Your task to perform on an android device: turn on translation in the chrome app Image 0: 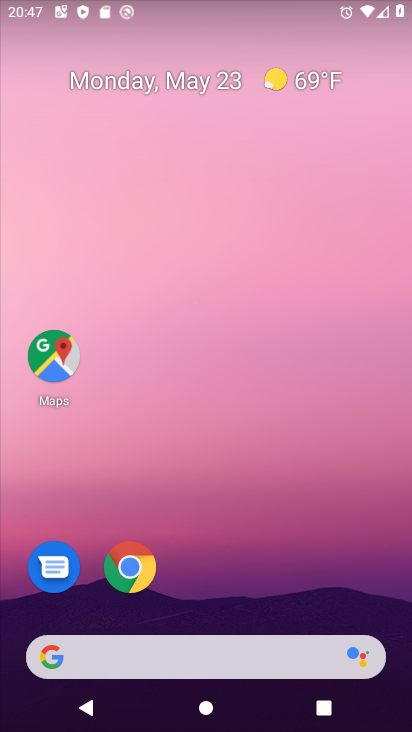
Step 0: drag from (182, 608) to (240, 23)
Your task to perform on an android device: turn on translation in the chrome app Image 1: 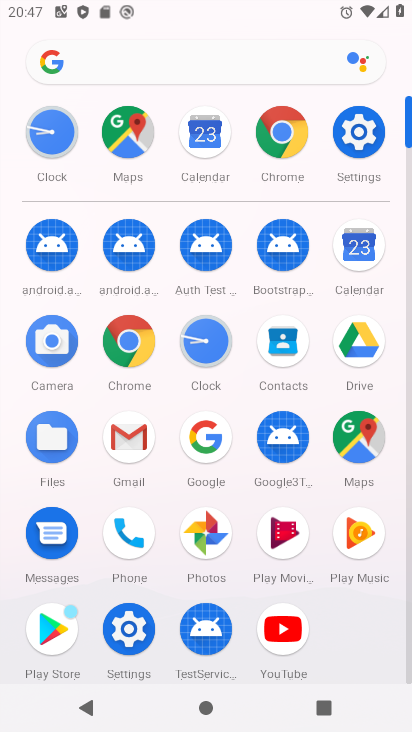
Step 1: click (285, 146)
Your task to perform on an android device: turn on translation in the chrome app Image 2: 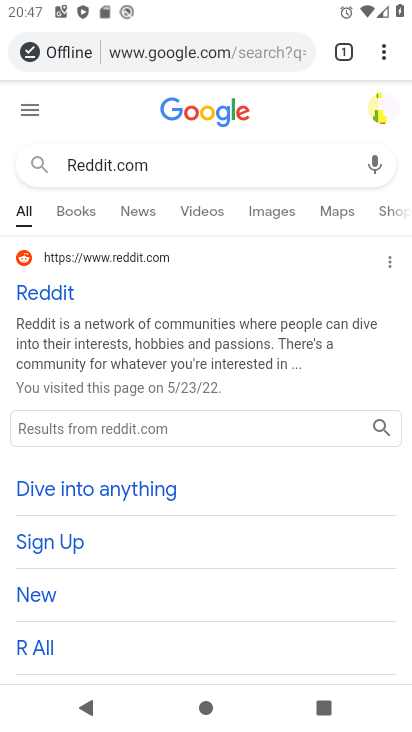
Step 2: click (383, 42)
Your task to perform on an android device: turn on translation in the chrome app Image 3: 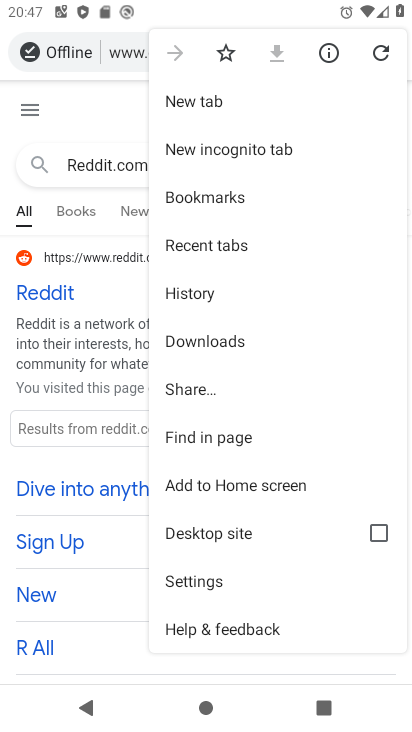
Step 3: click (194, 581)
Your task to perform on an android device: turn on translation in the chrome app Image 4: 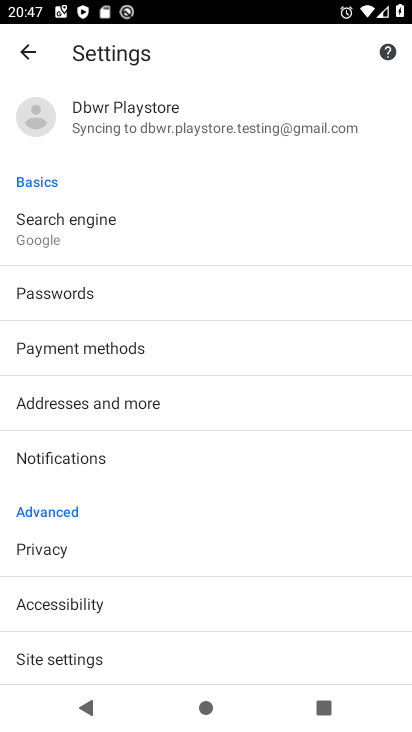
Step 4: drag from (108, 499) to (133, 321)
Your task to perform on an android device: turn on translation in the chrome app Image 5: 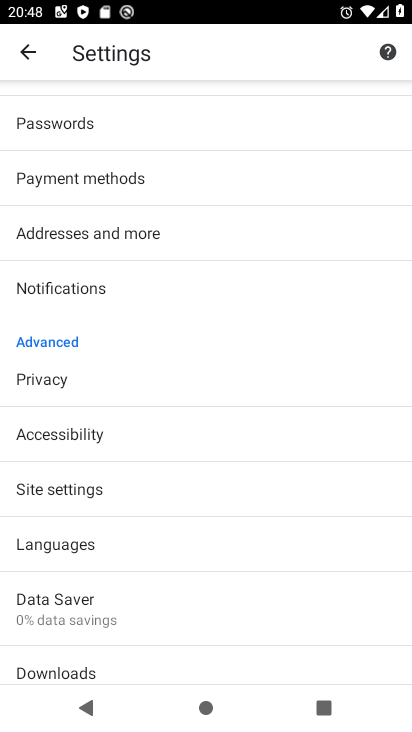
Step 5: click (88, 554)
Your task to perform on an android device: turn on translation in the chrome app Image 6: 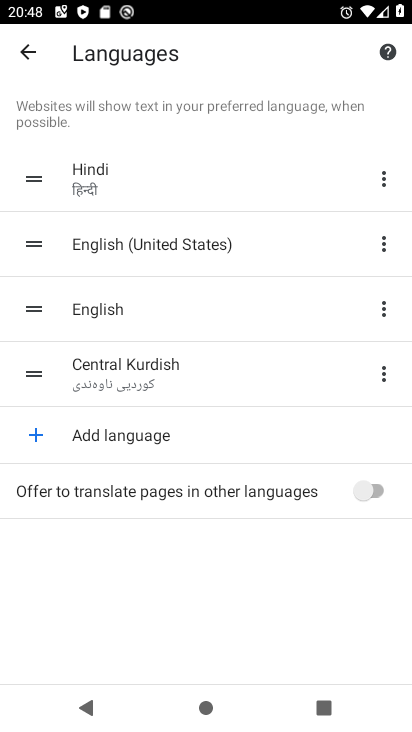
Step 6: click (376, 482)
Your task to perform on an android device: turn on translation in the chrome app Image 7: 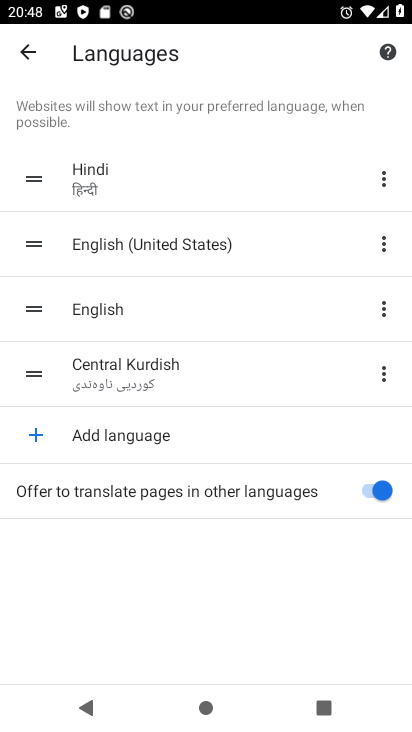
Step 7: task complete